Your task to perform on an android device: Search for "apple airpods pro" on newegg.com, select the first entry, add it to the cart, then select checkout. Image 0: 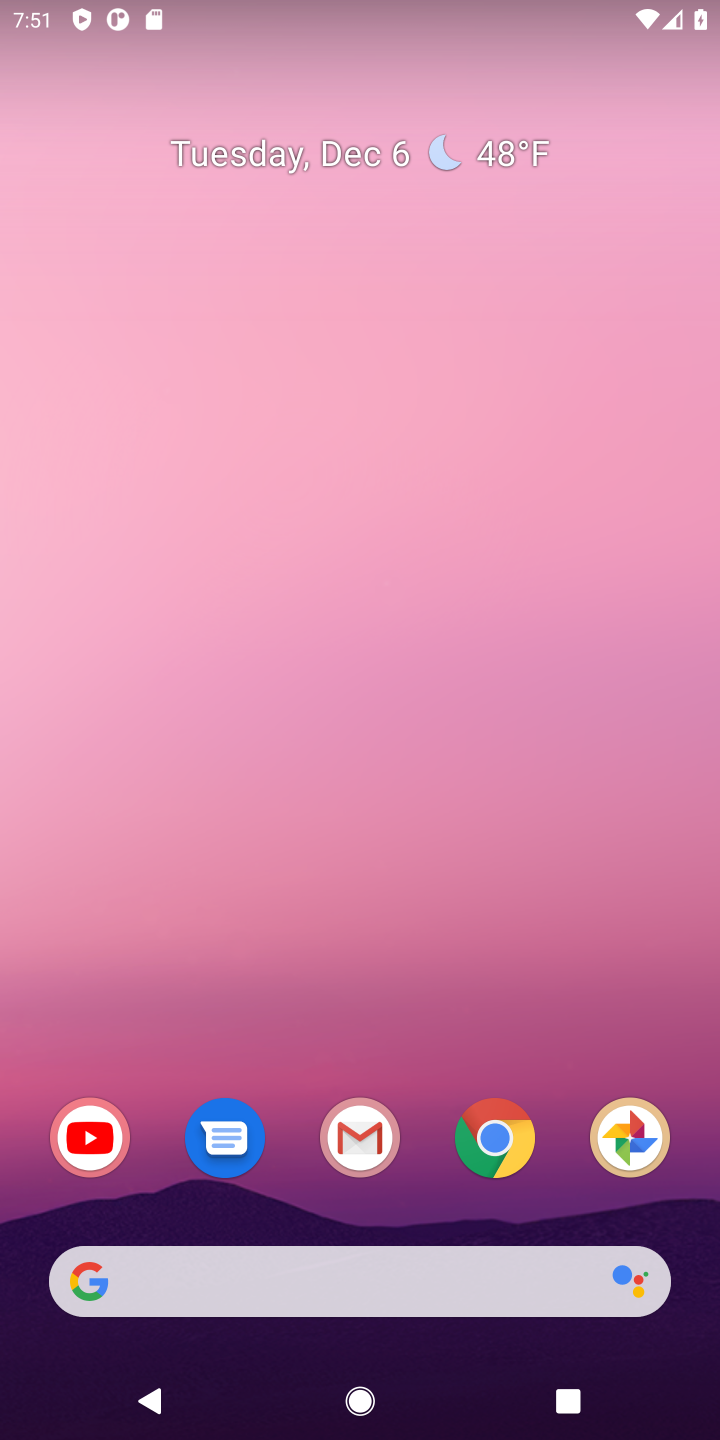
Step 0: click (500, 1155)
Your task to perform on an android device: Search for "apple airpods pro" on newegg.com, select the first entry, add it to the cart, then select checkout. Image 1: 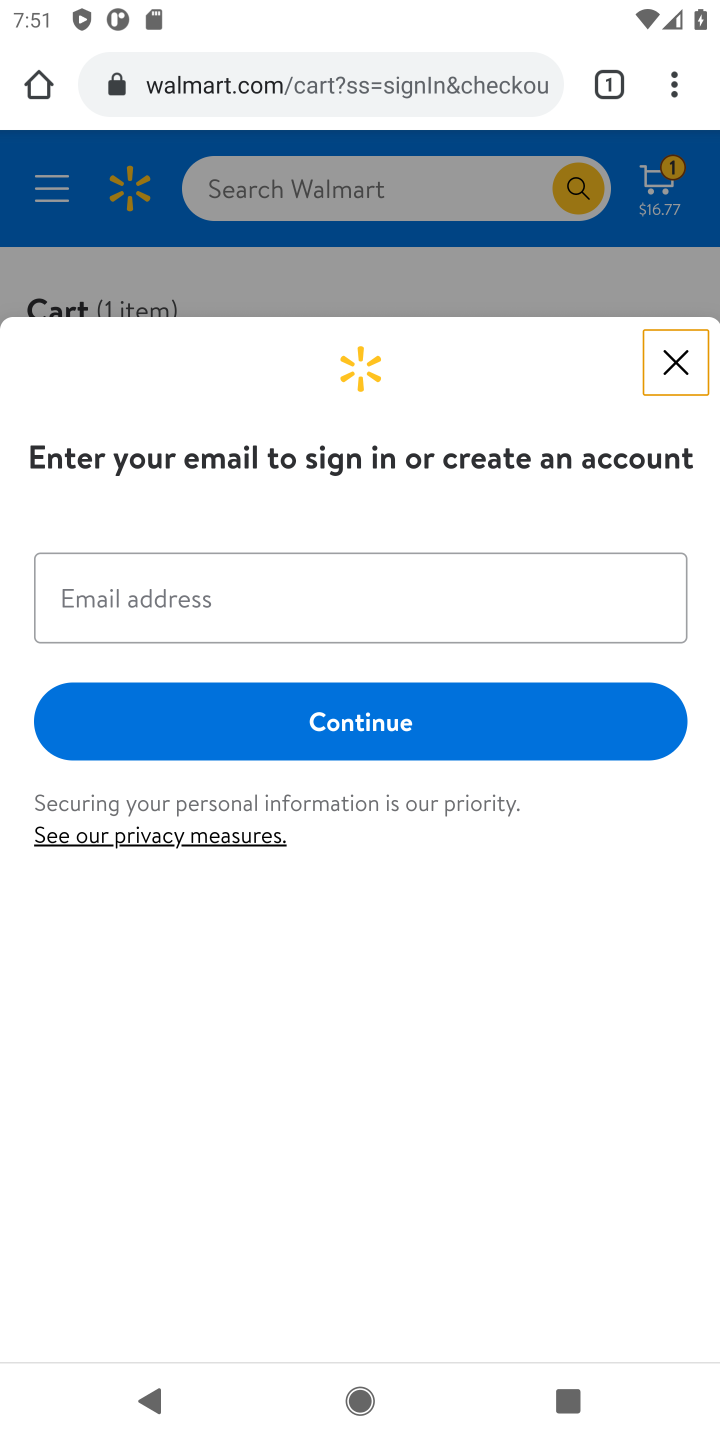
Step 1: click (354, 88)
Your task to perform on an android device: Search for "apple airpods pro" on newegg.com, select the first entry, add it to the cart, then select checkout. Image 2: 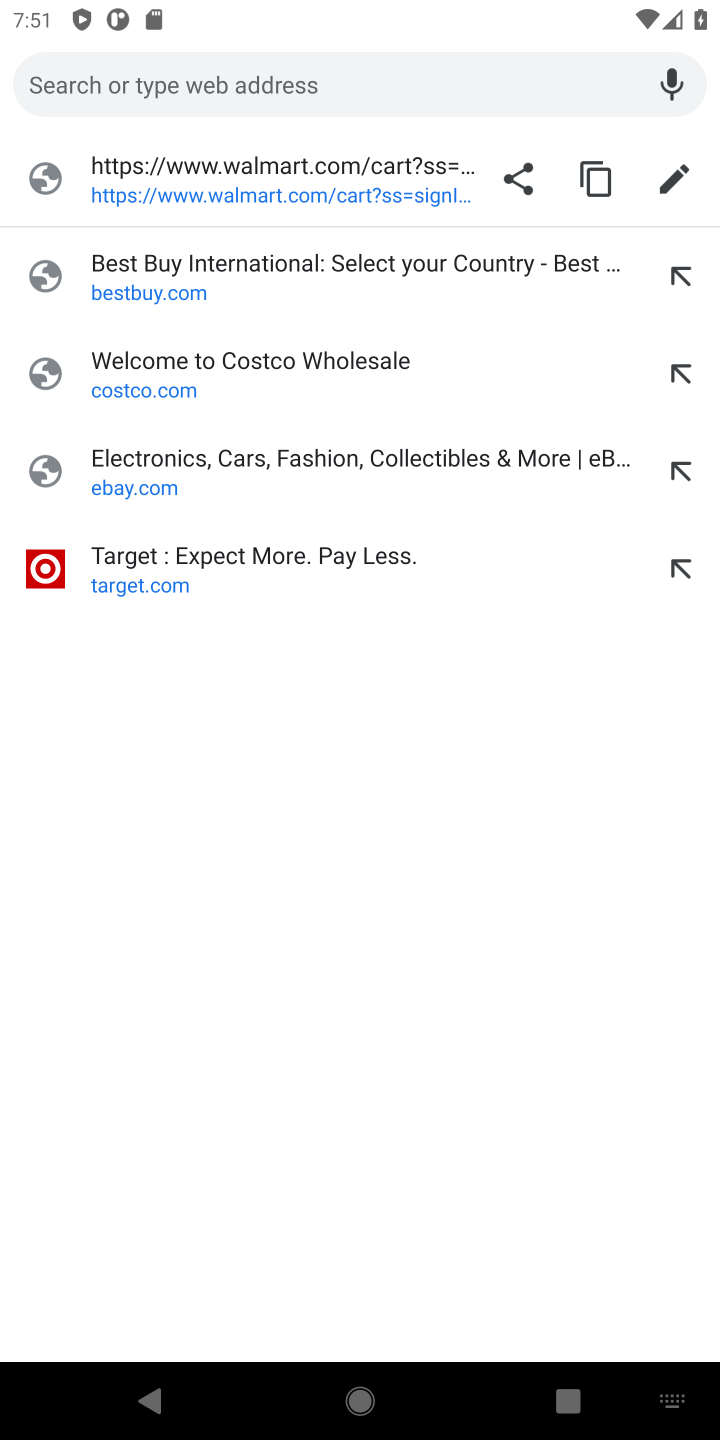
Step 2: type "newegg.com"
Your task to perform on an android device: Search for "apple airpods pro" on newegg.com, select the first entry, add it to the cart, then select checkout. Image 3: 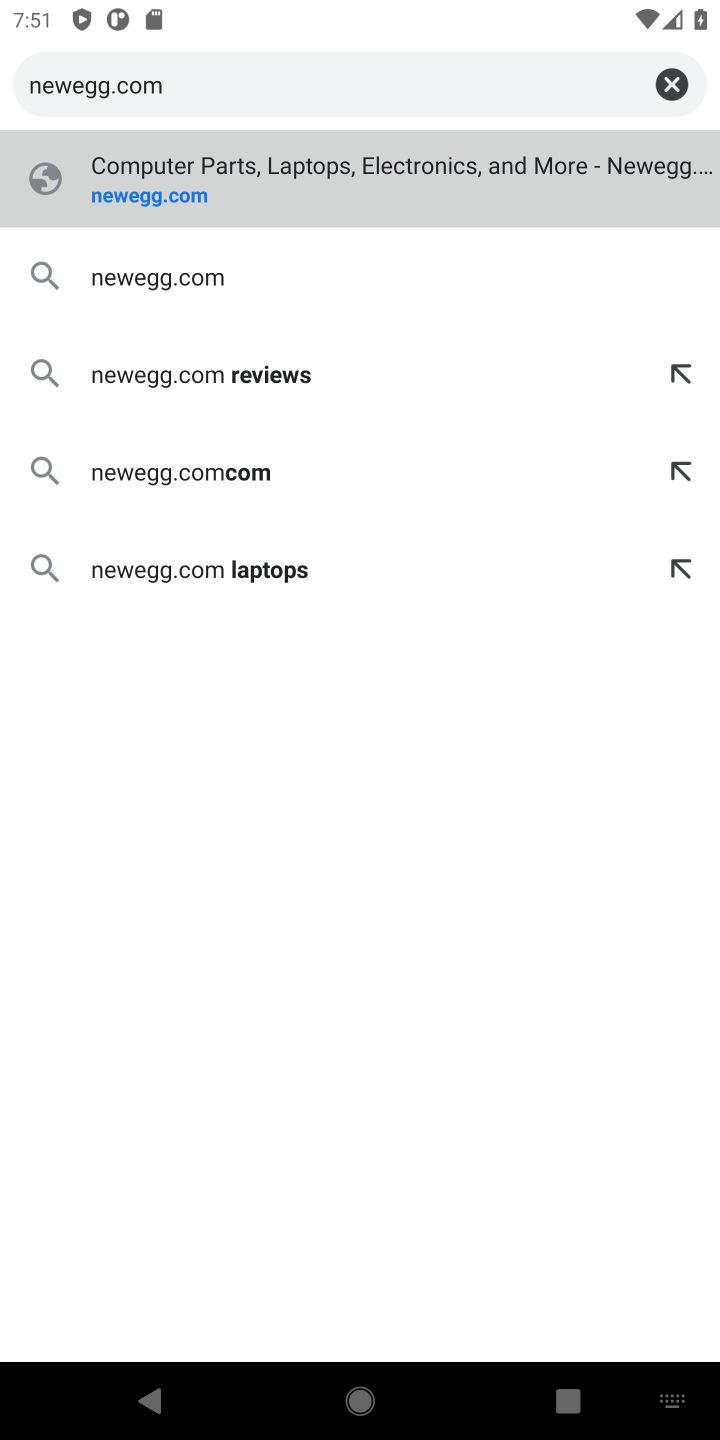
Step 3: click (116, 206)
Your task to perform on an android device: Search for "apple airpods pro" on newegg.com, select the first entry, add it to the cart, then select checkout. Image 4: 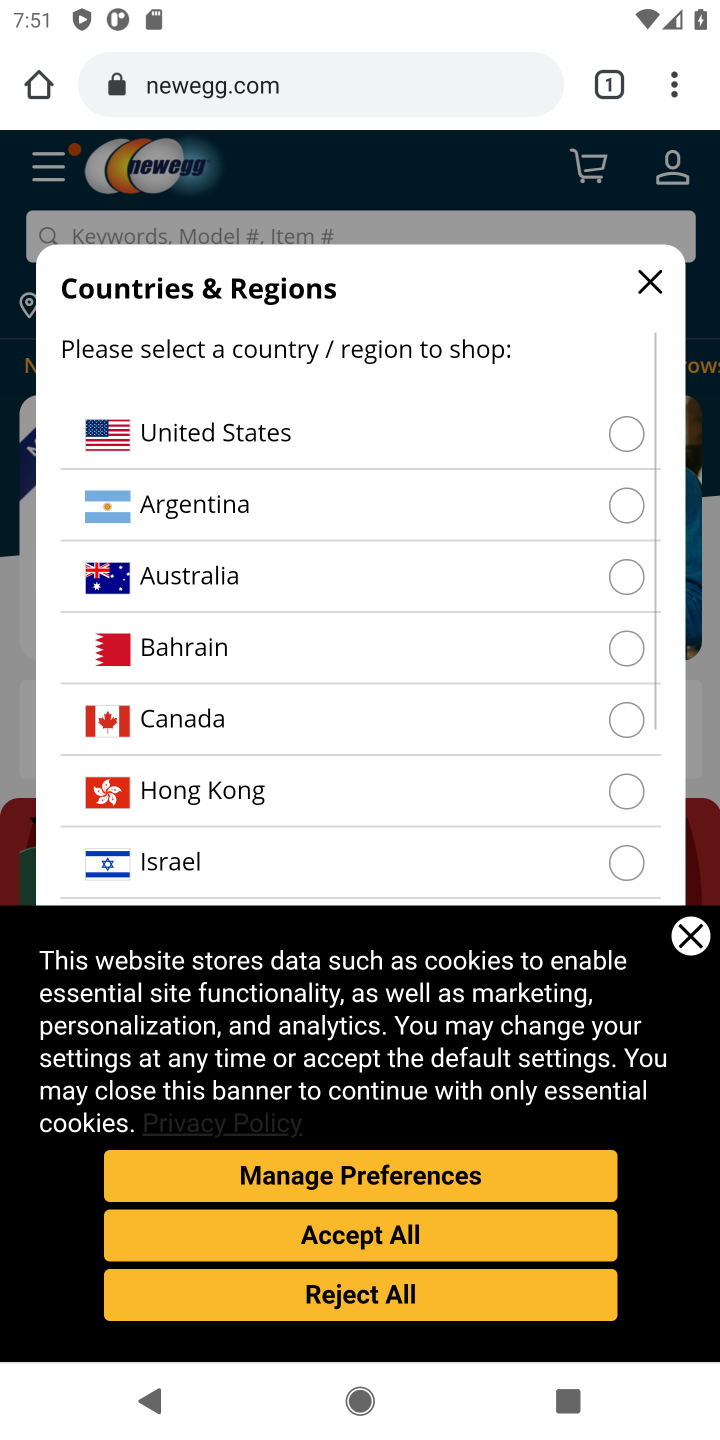
Step 4: click (688, 938)
Your task to perform on an android device: Search for "apple airpods pro" on newegg.com, select the first entry, add it to the cart, then select checkout. Image 5: 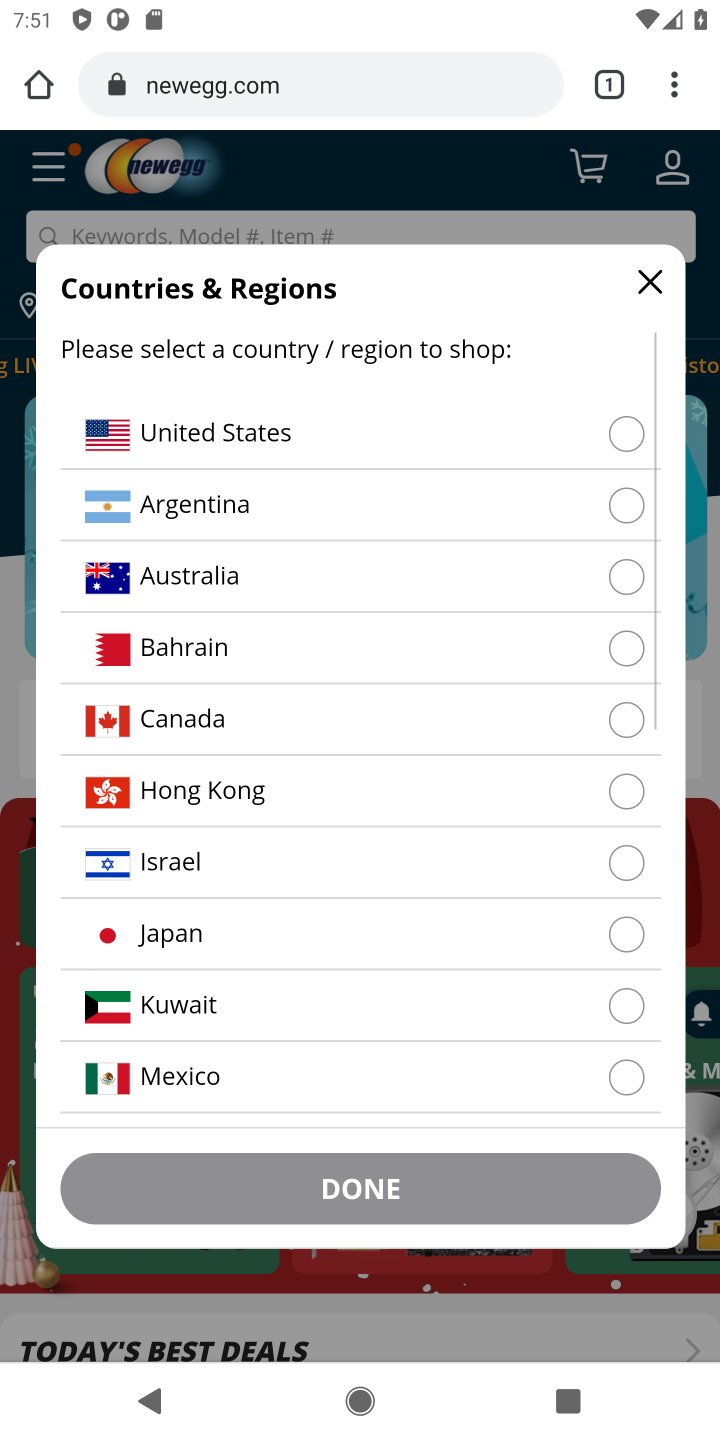
Step 5: click (184, 444)
Your task to perform on an android device: Search for "apple airpods pro" on newegg.com, select the first entry, add it to the cart, then select checkout. Image 6: 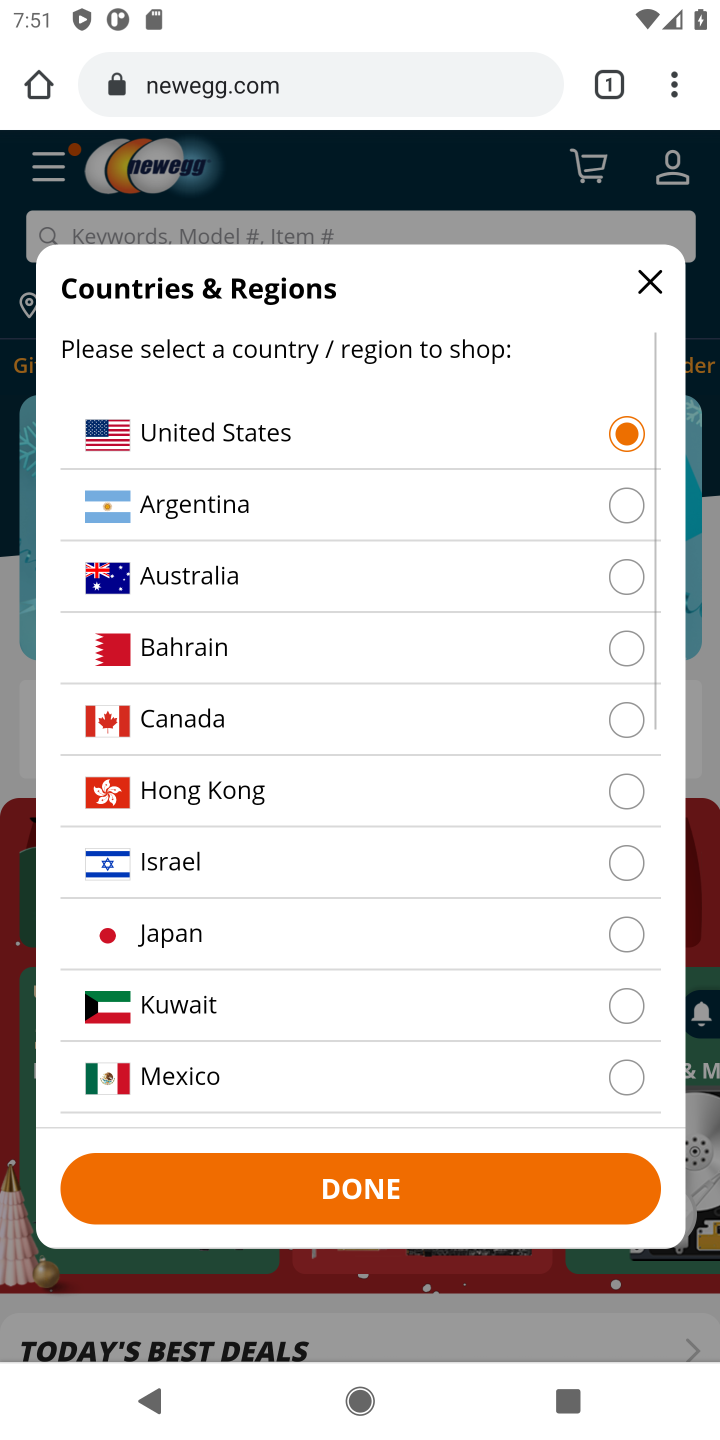
Step 6: click (336, 1198)
Your task to perform on an android device: Search for "apple airpods pro" on newegg.com, select the first entry, add it to the cart, then select checkout. Image 7: 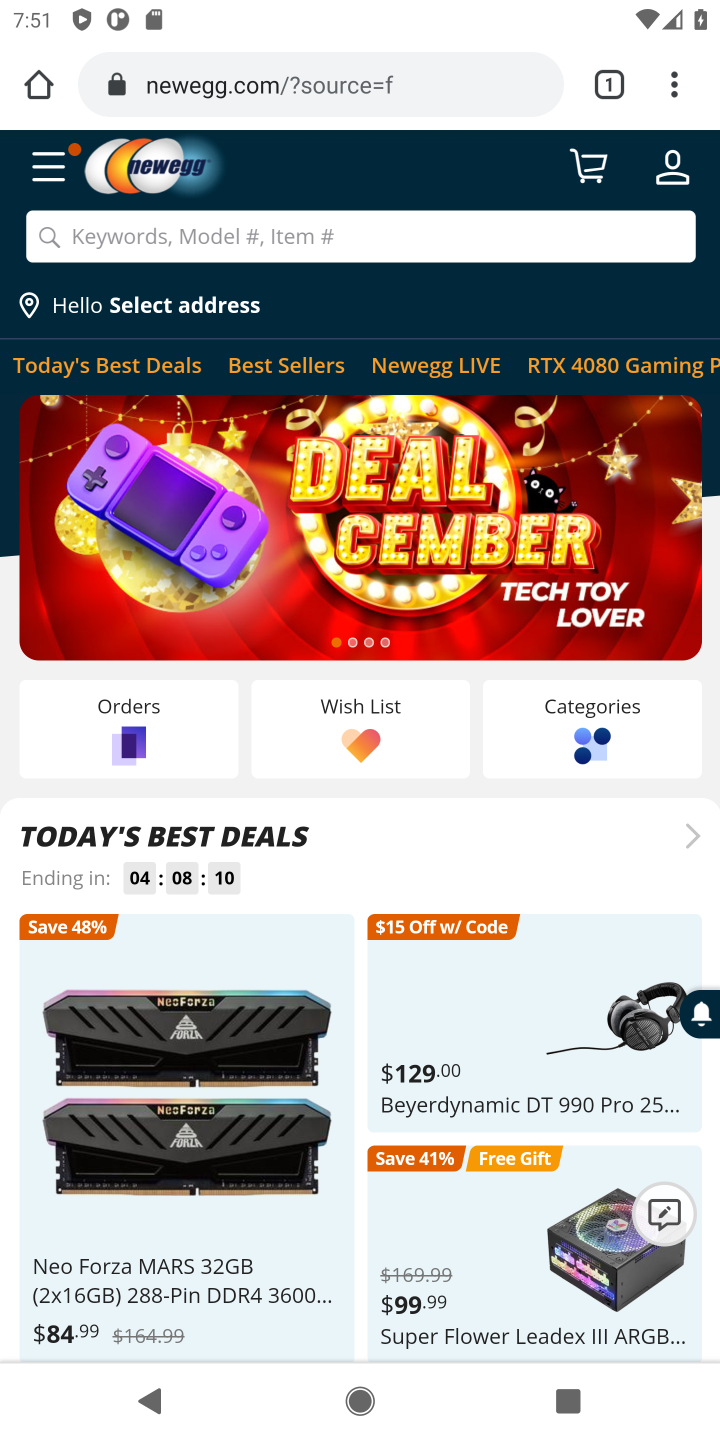
Step 7: click (189, 239)
Your task to perform on an android device: Search for "apple airpods pro" on newegg.com, select the first entry, add it to the cart, then select checkout. Image 8: 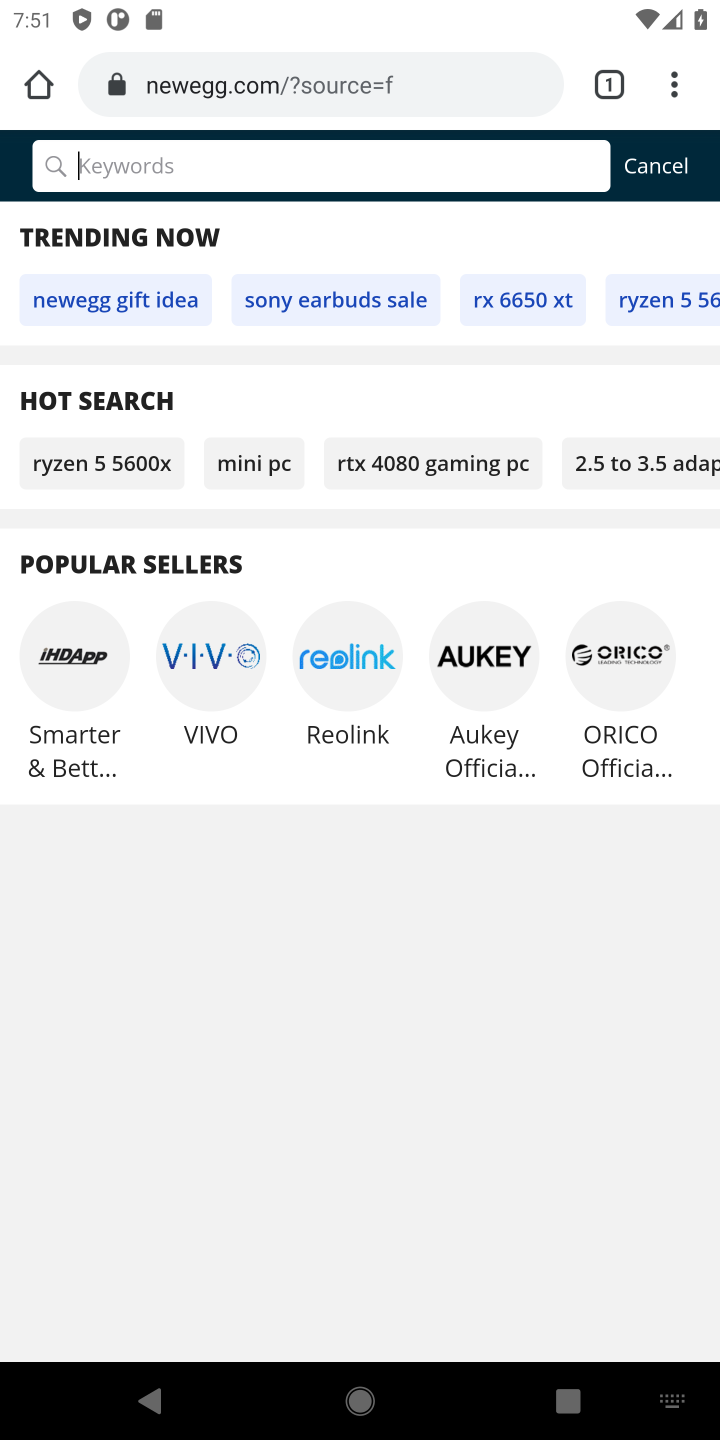
Step 8: type "apple airpods pro"
Your task to perform on an android device: Search for "apple airpods pro" on newegg.com, select the first entry, add it to the cart, then select checkout. Image 9: 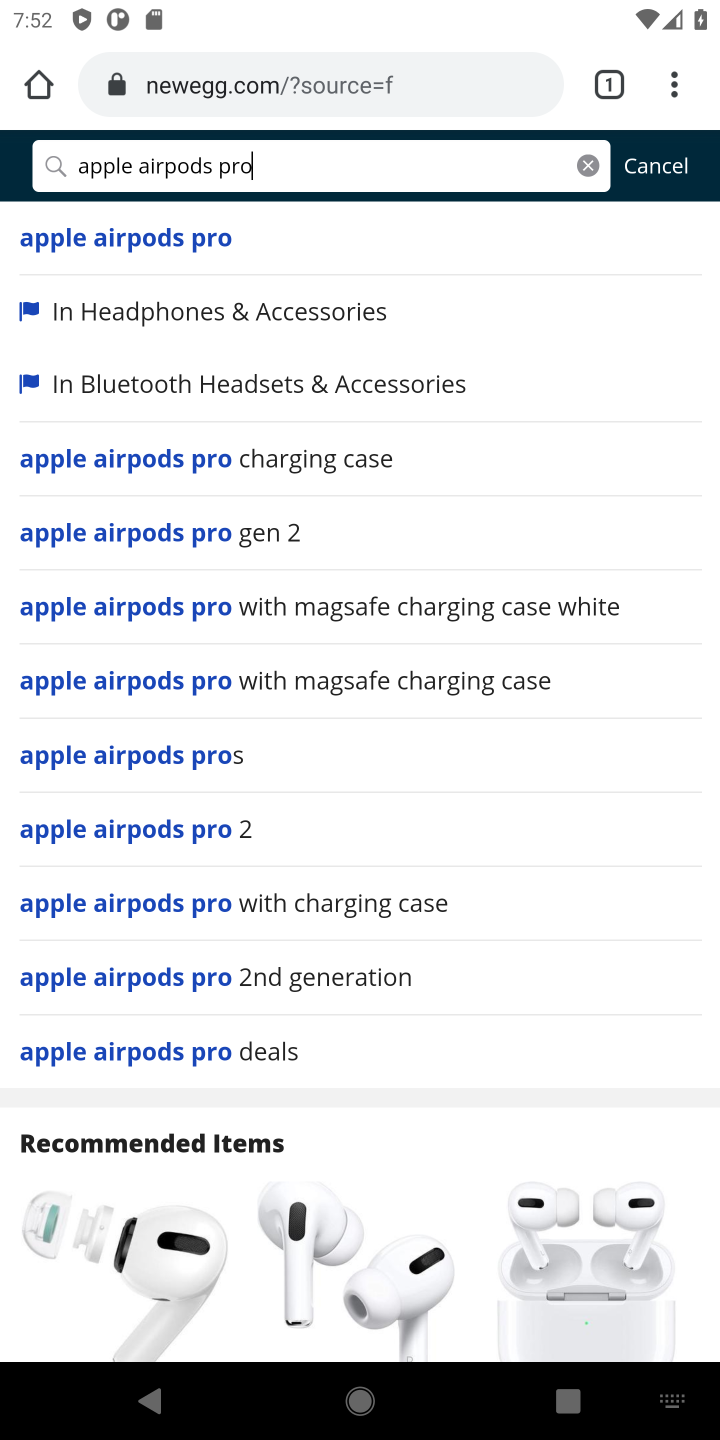
Step 9: click (179, 254)
Your task to perform on an android device: Search for "apple airpods pro" on newegg.com, select the first entry, add it to the cart, then select checkout. Image 10: 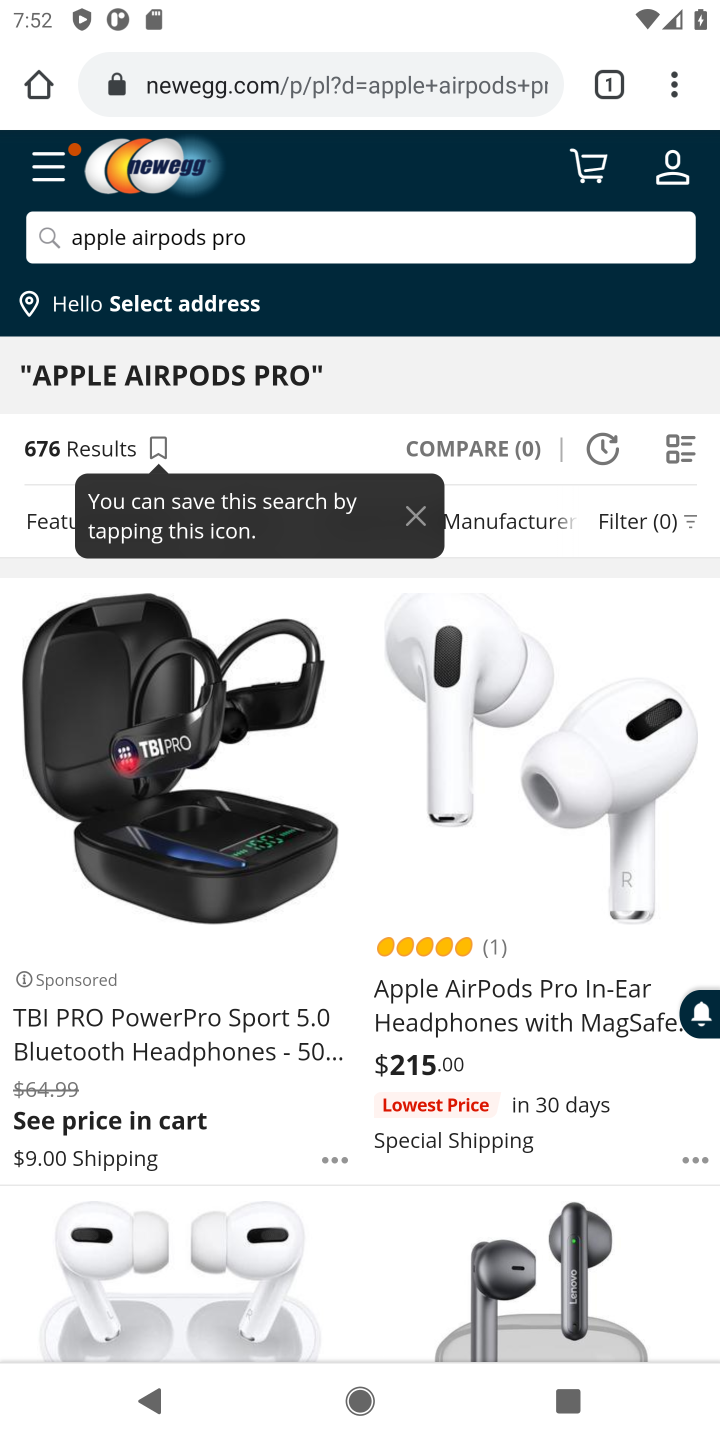
Step 10: task complete